Your task to perform on an android device: Turn off the flashlight Image 0: 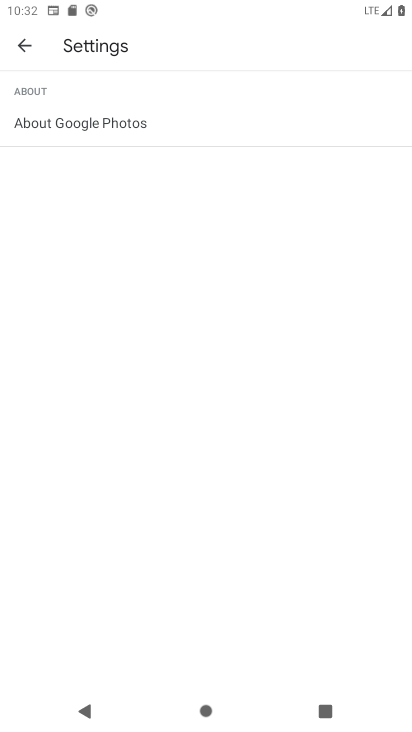
Step 0: press home button
Your task to perform on an android device: Turn off the flashlight Image 1: 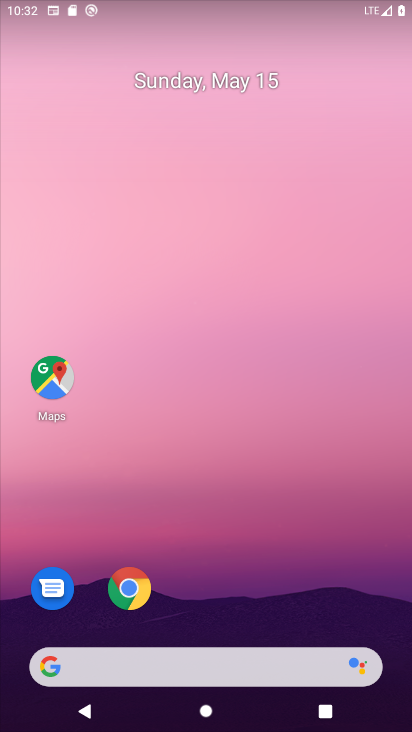
Step 1: drag from (213, 574) to (207, 79)
Your task to perform on an android device: Turn off the flashlight Image 2: 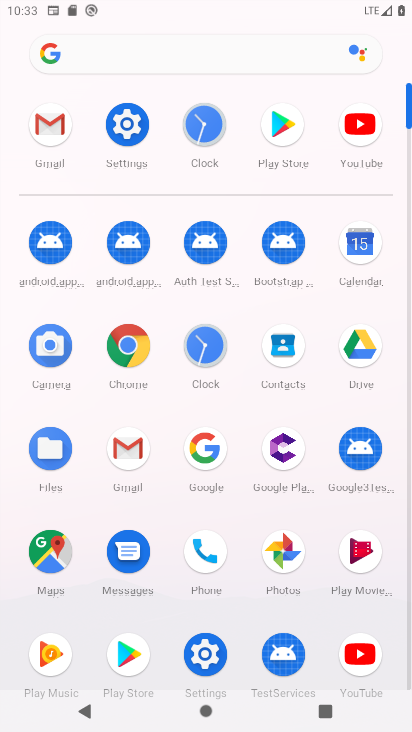
Step 2: click (129, 124)
Your task to perform on an android device: Turn off the flashlight Image 3: 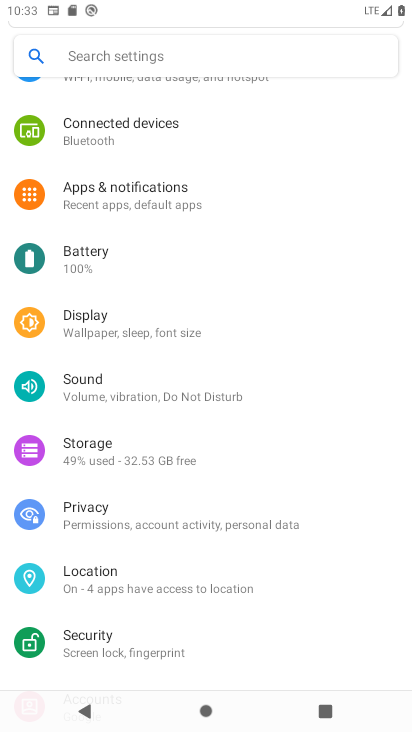
Step 3: click (116, 181)
Your task to perform on an android device: Turn off the flashlight Image 4: 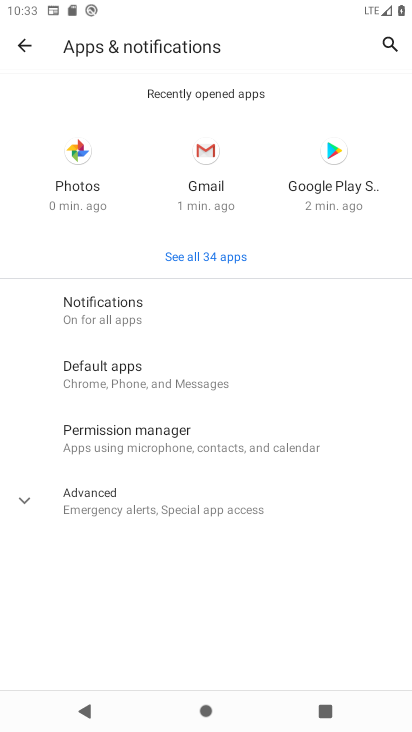
Step 4: click (145, 494)
Your task to perform on an android device: Turn off the flashlight Image 5: 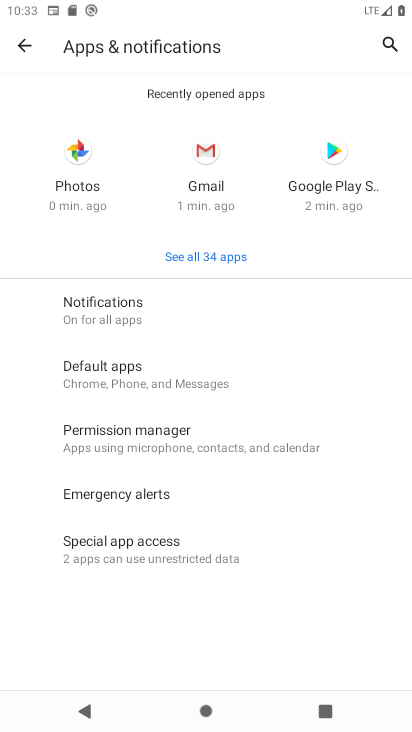
Step 5: click (159, 549)
Your task to perform on an android device: Turn off the flashlight Image 6: 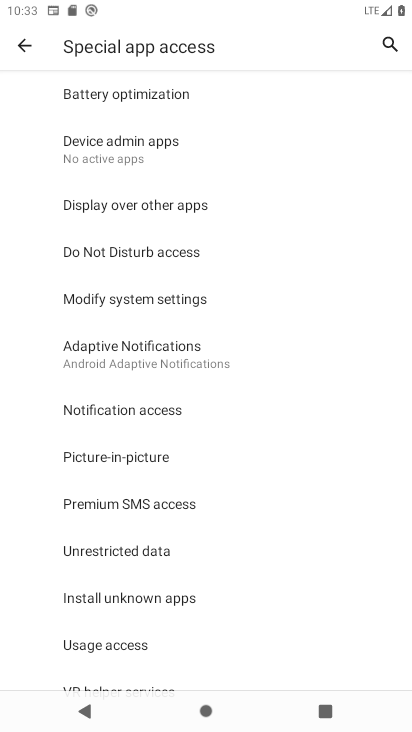
Step 6: task complete